Your task to perform on an android device: Open Google Maps and go to "Timeline" Image 0: 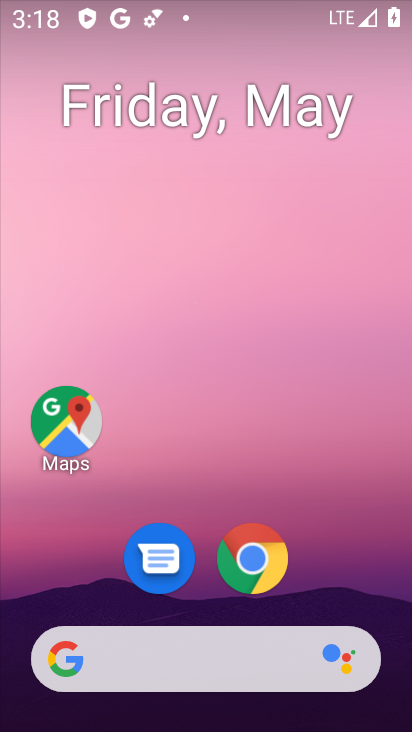
Step 0: press home button
Your task to perform on an android device: Open Google Maps and go to "Timeline" Image 1: 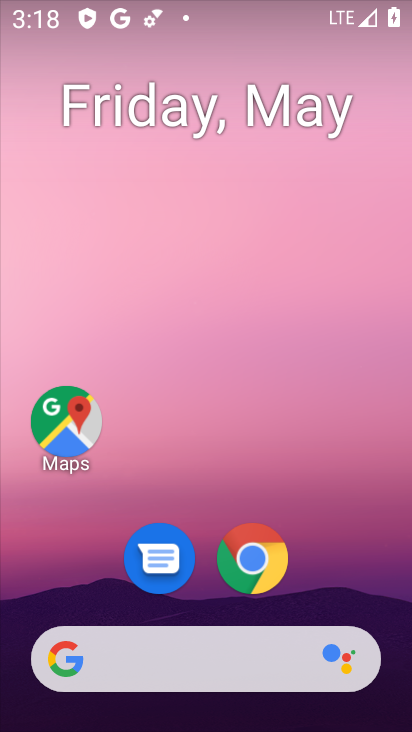
Step 1: click (58, 421)
Your task to perform on an android device: Open Google Maps and go to "Timeline" Image 2: 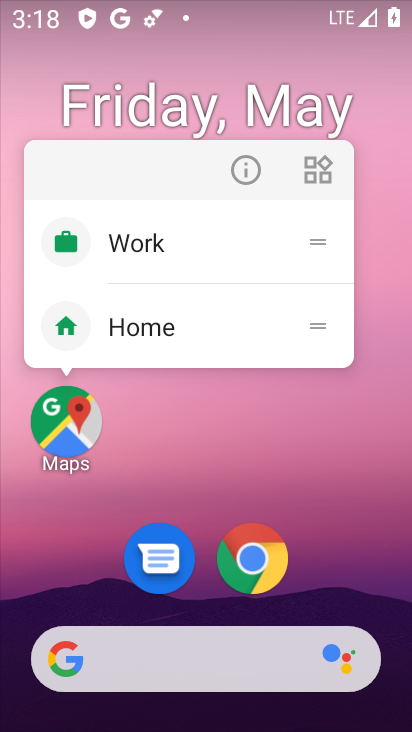
Step 2: click (72, 434)
Your task to perform on an android device: Open Google Maps and go to "Timeline" Image 3: 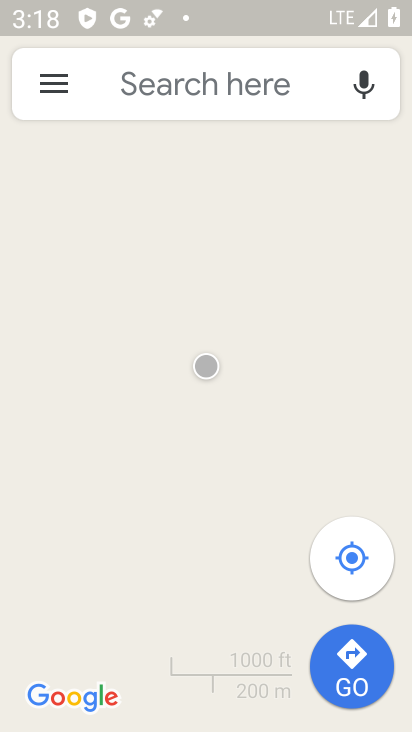
Step 3: click (62, 87)
Your task to perform on an android device: Open Google Maps and go to "Timeline" Image 4: 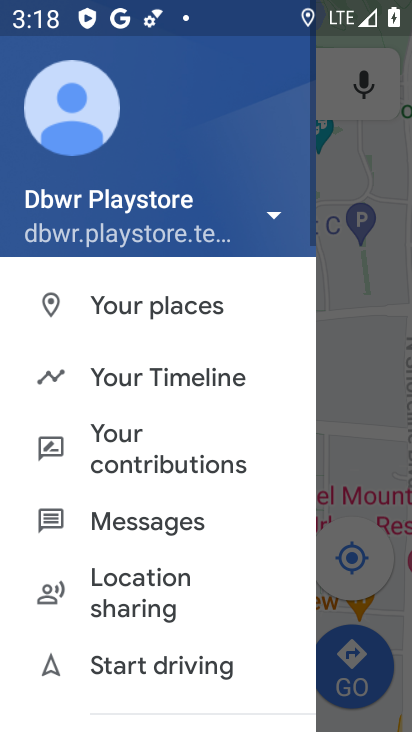
Step 4: click (151, 383)
Your task to perform on an android device: Open Google Maps and go to "Timeline" Image 5: 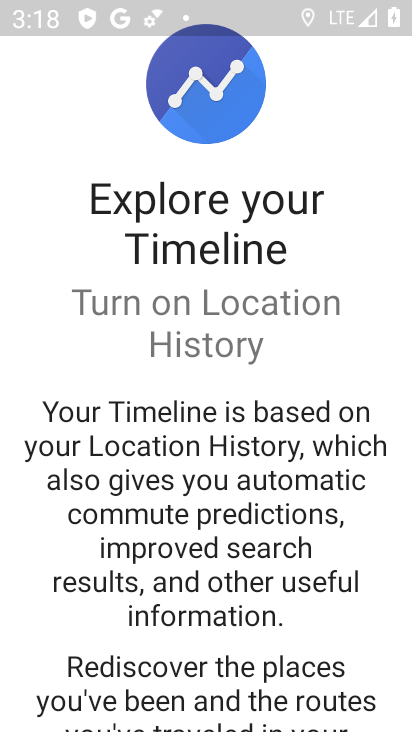
Step 5: drag from (140, 555) to (249, 217)
Your task to perform on an android device: Open Google Maps and go to "Timeline" Image 6: 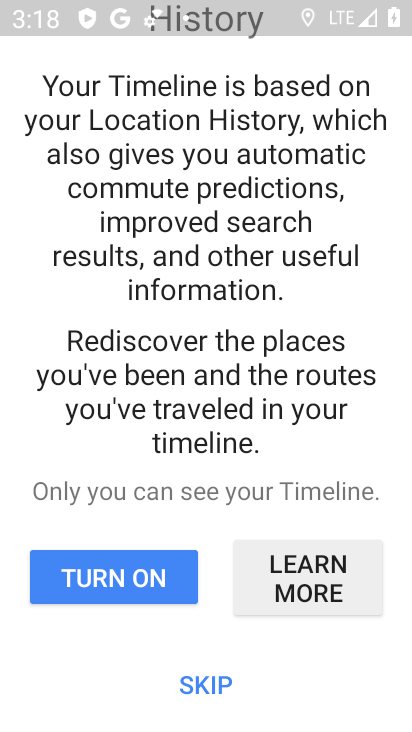
Step 6: click (206, 686)
Your task to perform on an android device: Open Google Maps and go to "Timeline" Image 7: 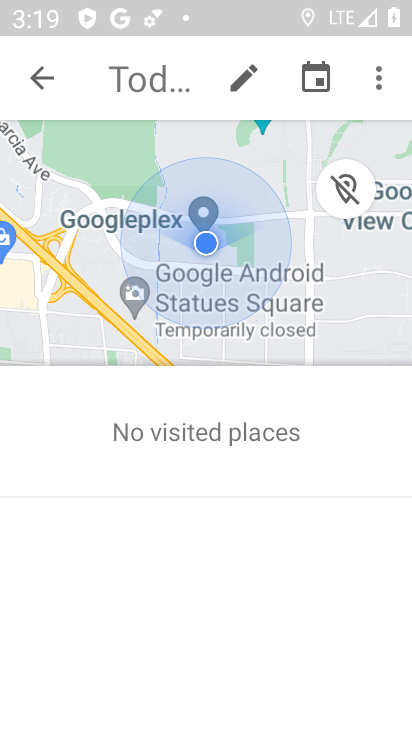
Step 7: task complete